Your task to perform on an android device: Go to CNN.com Image 0: 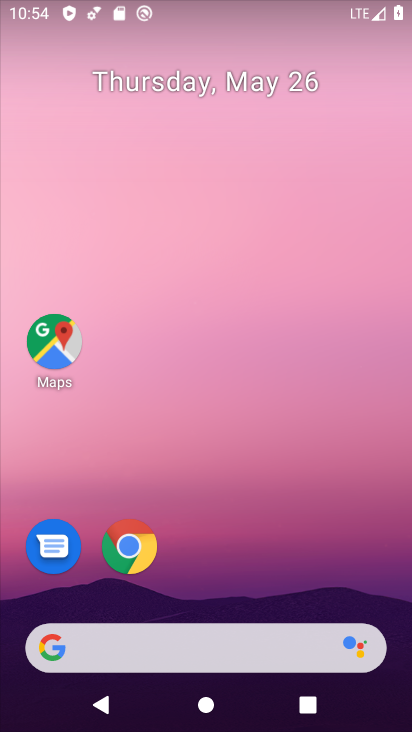
Step 0: drag from (198, 564) to (269, 102)
Your task to perform on an android device: Go to CNN.com Image 1: 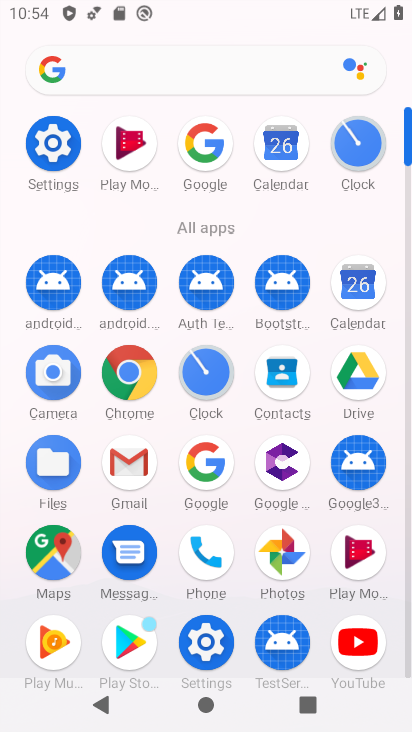
Step 1: click (206, 468)
Your task to perform on an android device: Go to CNN.com Image 2: 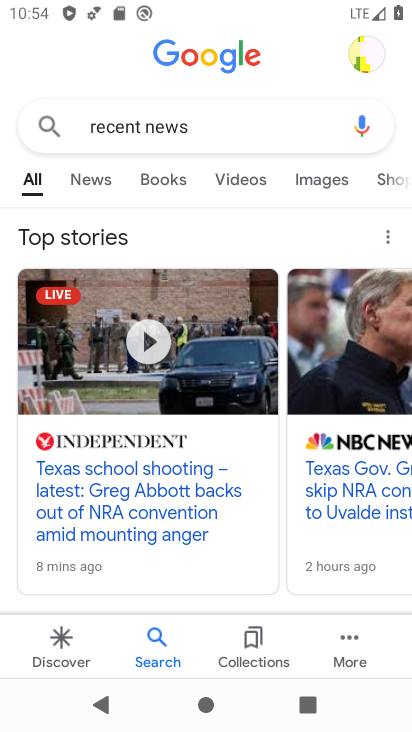
Step 2: click (235, 131)
Your task to perform on an android device: Go to CNN.com Image 3: 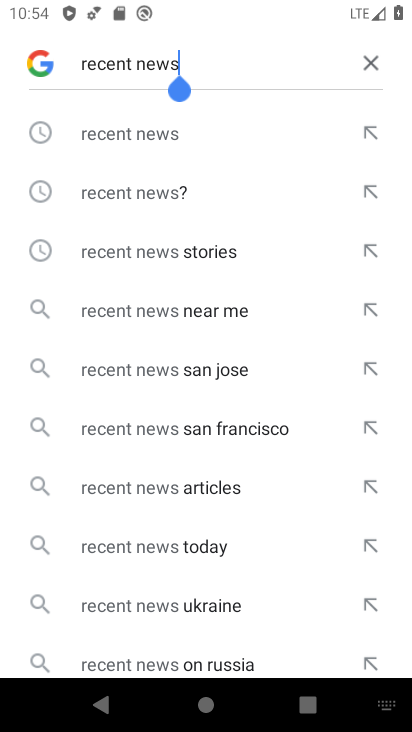
Step 3: click (372, 61)
Your task to perform on an android device: Go to CNN.com Image 4: 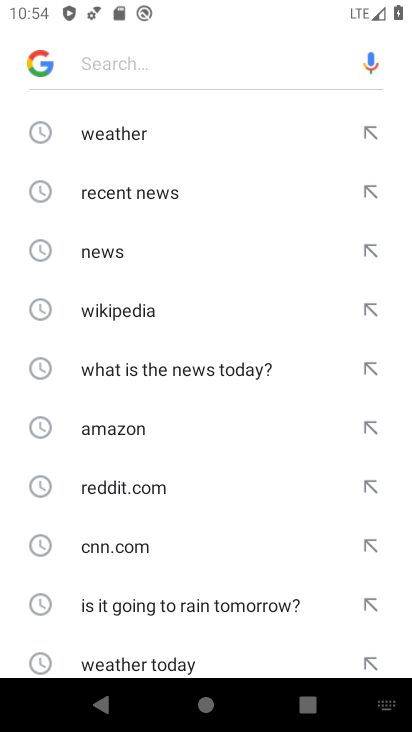
Step 4: click (143, 547)
Your task to perform on an android device: Go to CNN.com Image 5: 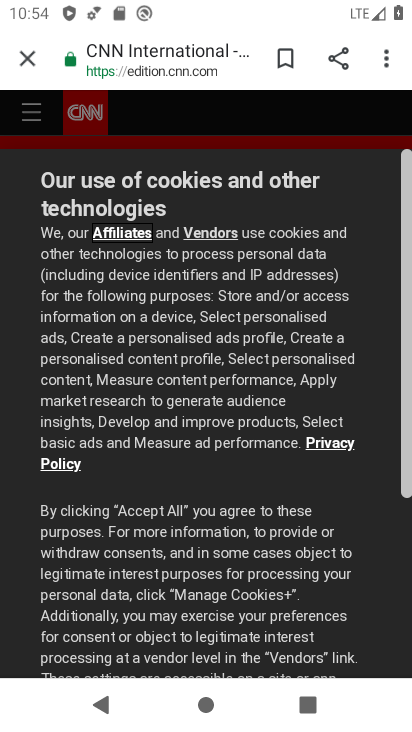
Step 5: task complete